Your task to perform on an android device: Open CNN.com Image 0: 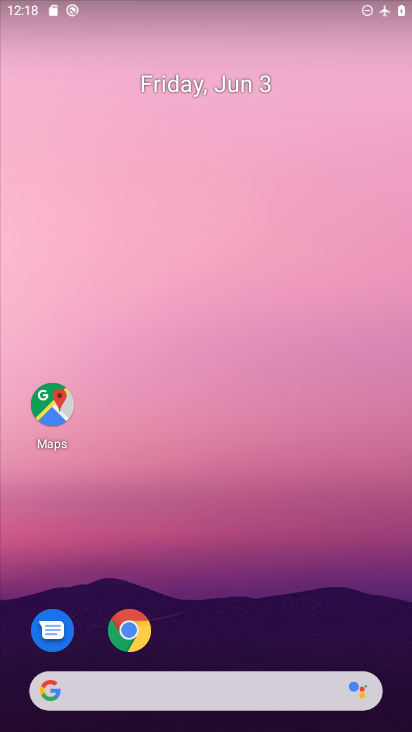
Step 0: click (141, 630)
Your task to perform on an android device: Open CNN.com Image 1: 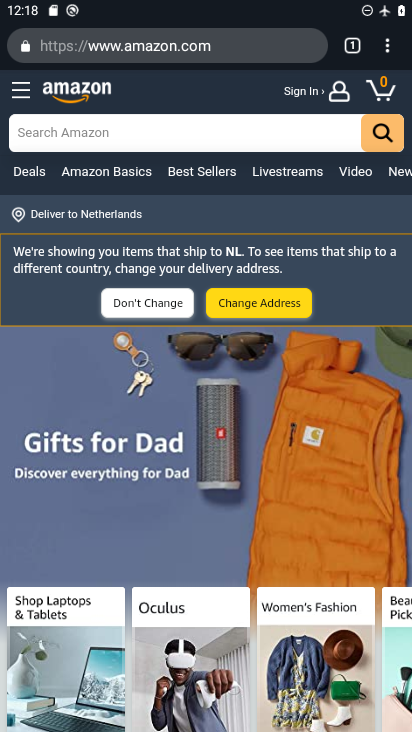
Step 1: click (143, 51)
Your task to perform on an android device: Open CNN.com Image 2: 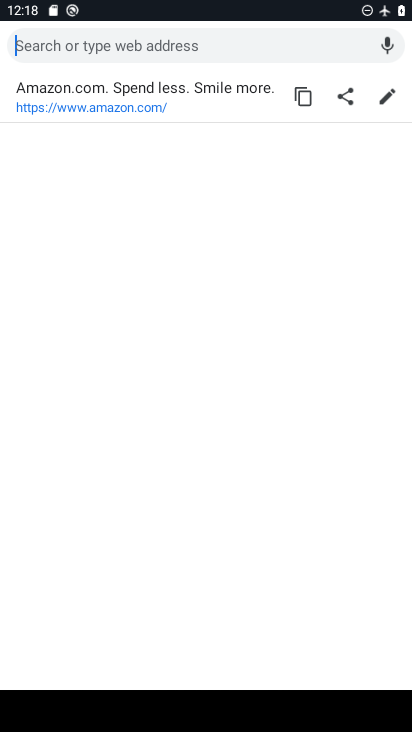
Step 2: type "cnn.com"
Your task to perform on an android device: Open CNN.com Image 3: 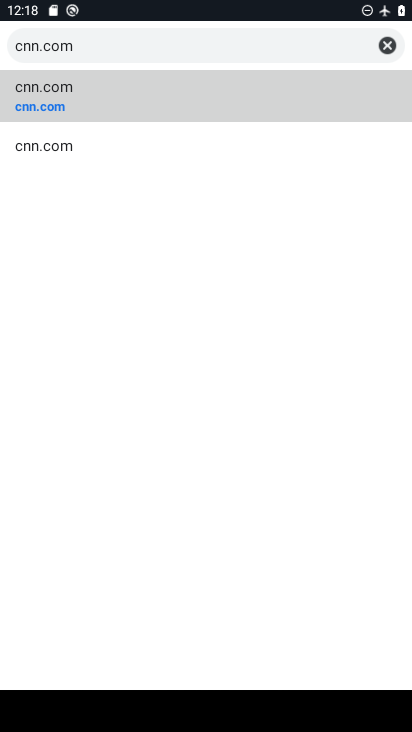
Step 3: click (46, 111)
Your task to perform on an android device: Open CNN.com Image 4: 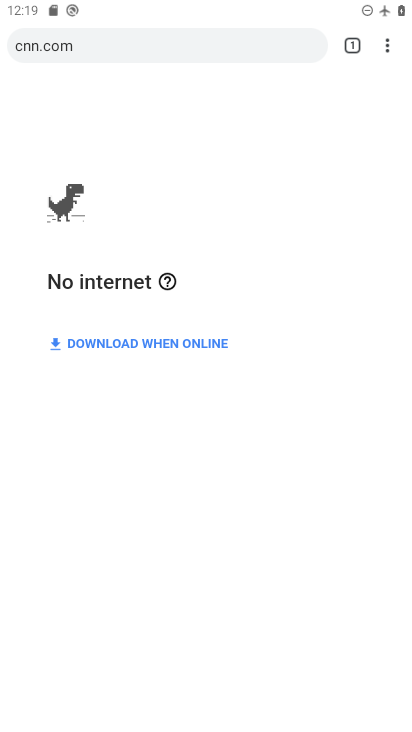
Step 4: task complete